Your task to perform on an android device: turn on showing notifications on the lock screen Image 0: 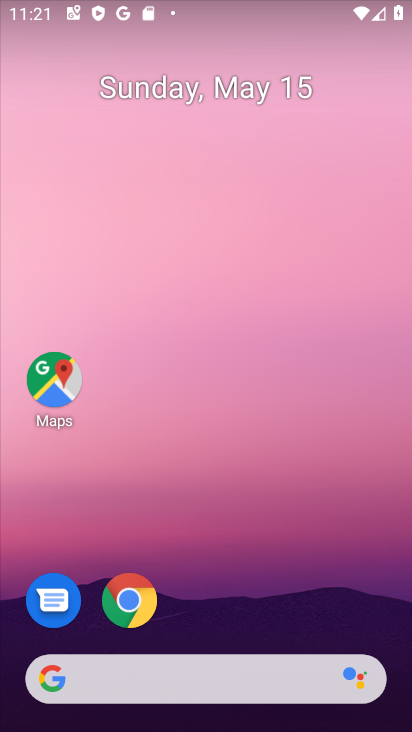
Step 0: click (58, 378)
Your task to perform on an android device: turn on showing notifications on the lock screen Image 1: 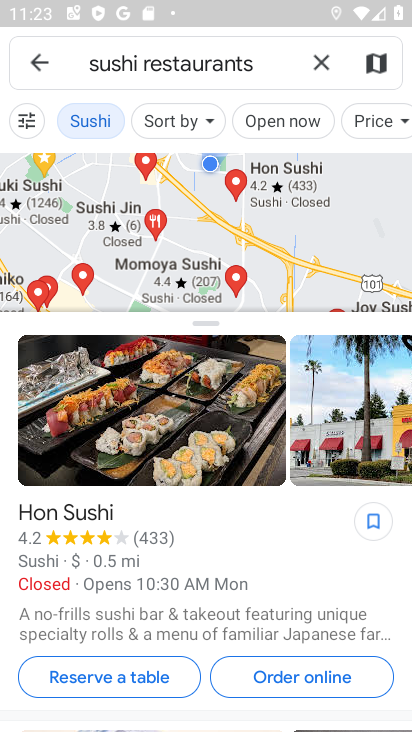
Step 1: press home button
Your task to perform on an android device: turn on showing notifications on the lock screen Image 2: 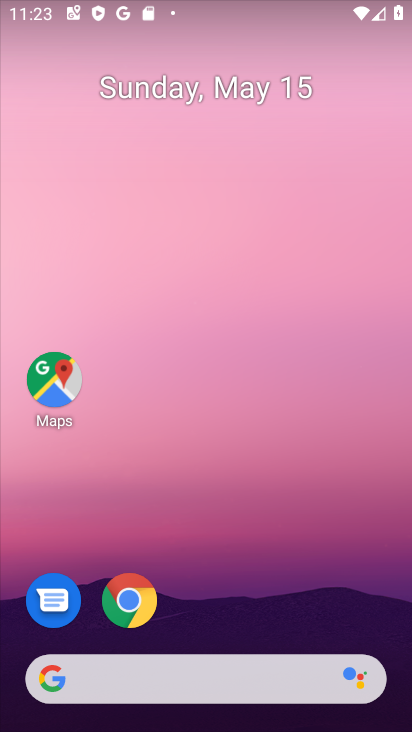
Step 2: drag from (162, 385) to (96, 8)
Your task to perform on an android device: turn on showing notifications on the lock screen Image 3: 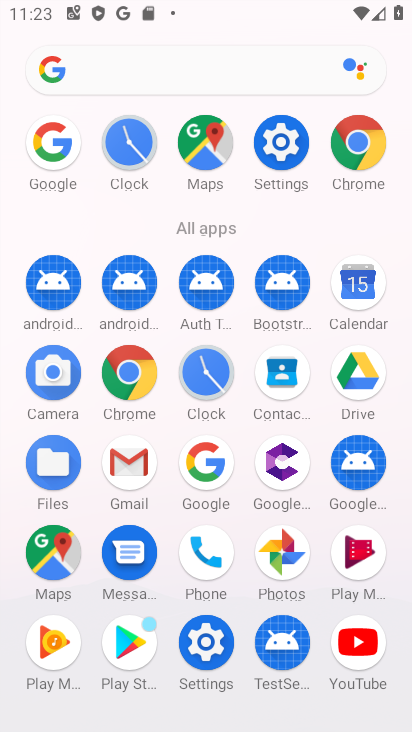
Step 3: click (277, 144)
Your task to perform on an android device: turn on showing notifications on the lock screen Image 4: 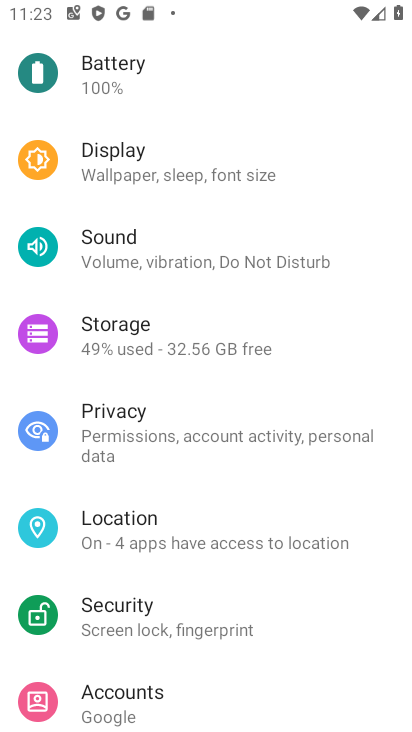
Step 4: drag from (134, 300) to (101, 716)
Your task to perform on an android device: turn on showing notifications on the lock screen Image 5: 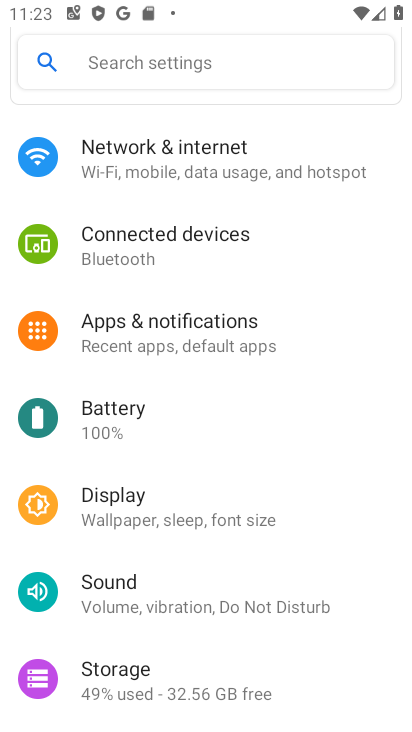
Step 5: click (151, 326)
Your task to perform on an android device: turn on showing notifications on the lock screen Image 6: 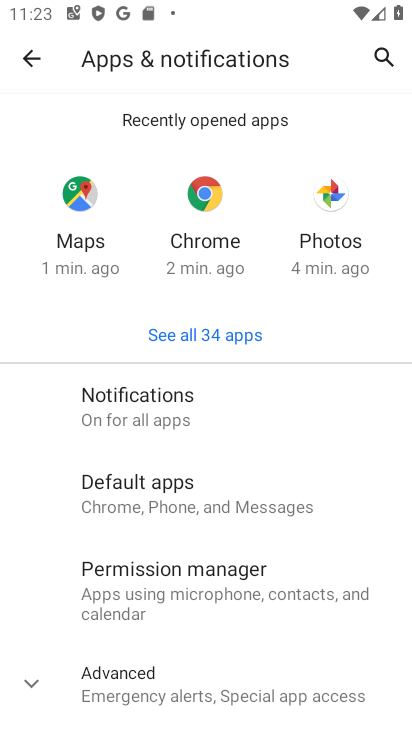
Step 6: drag from (147, 667) to (133, 158)
Your task to perform on an android device: turn on showing notifications on the lock screen Image 7: 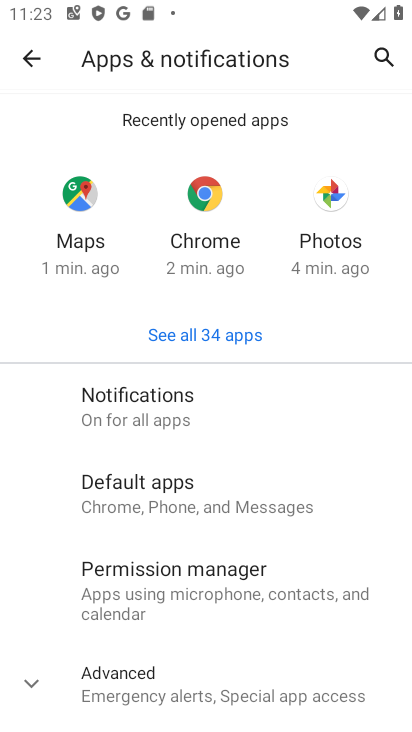
Step 7: click (167, 679)
Your task to perform on an android device: turn on showing notifications on the lock screen Image 8: 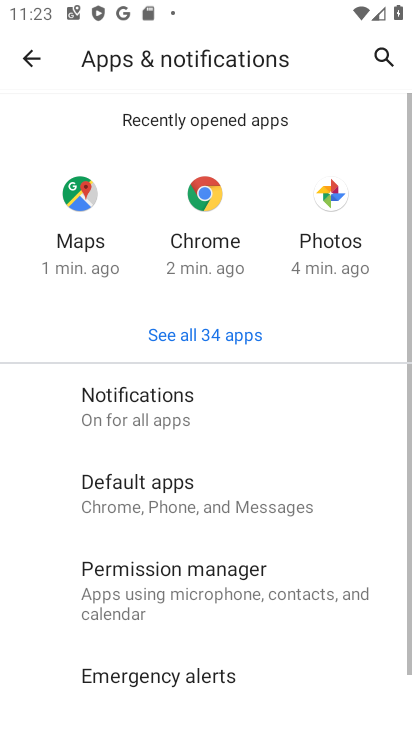
Step 8: drag from (210, 603) to (196, 55)
Your task to perform on an android device: turn on showing notifications on the lock screen Image 9: 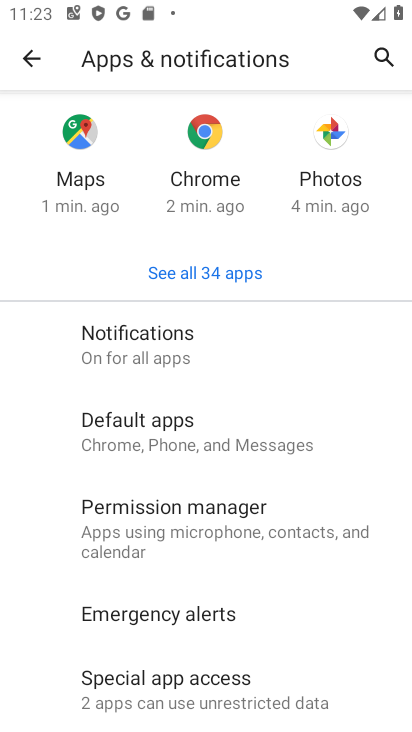
Step 9: click (152, 345)
Your task to perform on an android device: turn on showing notifications on the lock screen Image 10: 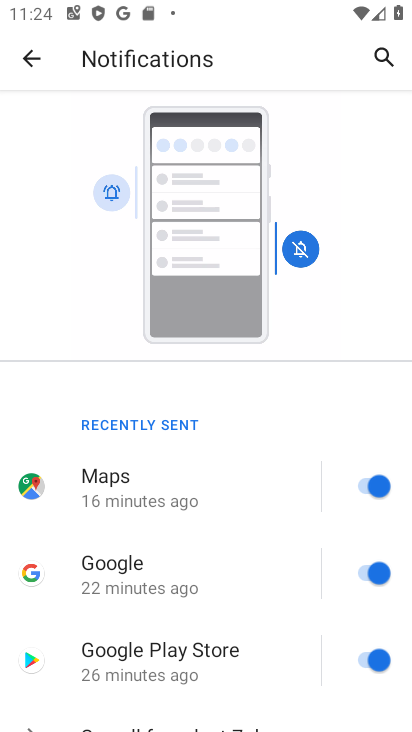
Step 10: drag from (188, 577) to (181, 196)
Your task to perform on an android device: turn on showing notifications on the lock screen Image 11: 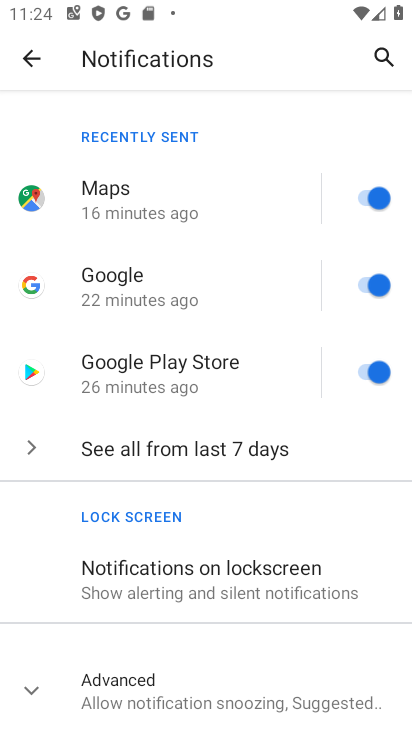
Step 11: click (180, 603)
Your task to perform on an android device: turn on showing notifications on the lock screen Image 12: 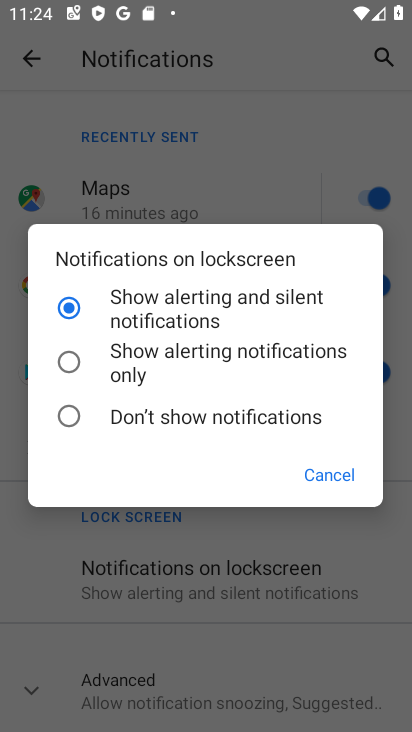
Step 12: click (157, 308)
Your task to perform on an android device: turn on showing notifications on the lock screen Image 13: 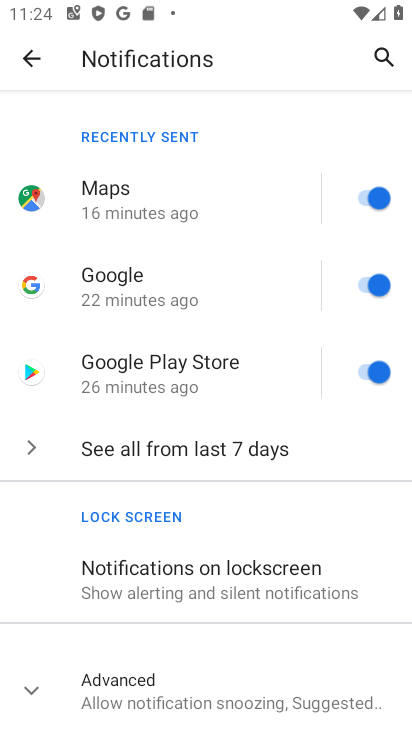
Step 13: task complete